Your task to perform on an android device: Find coffee shops on Maps Image 0: 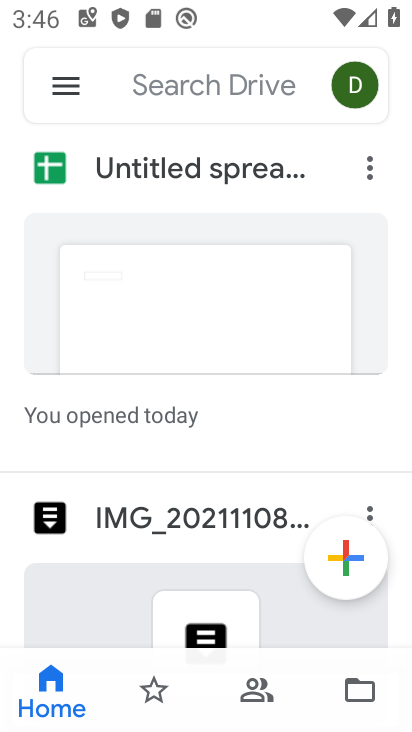
Step 0: press home button
Your task to perform on an android device: Find coffee shops on Maps Image 1: 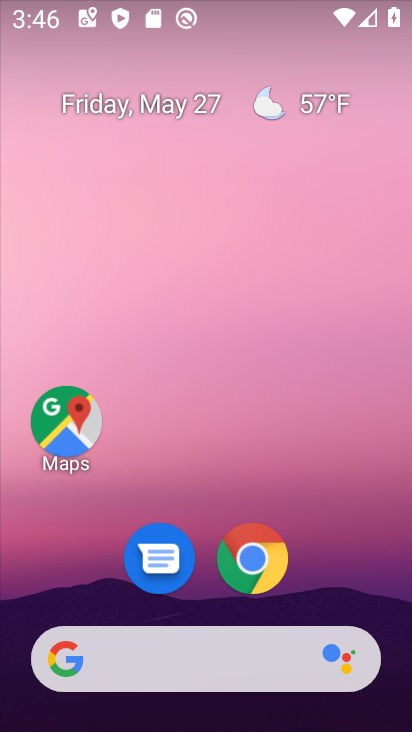
Step 1: click (90, 419)
Your task to perform on an android device: Find coffee shops on Maps Image 2: 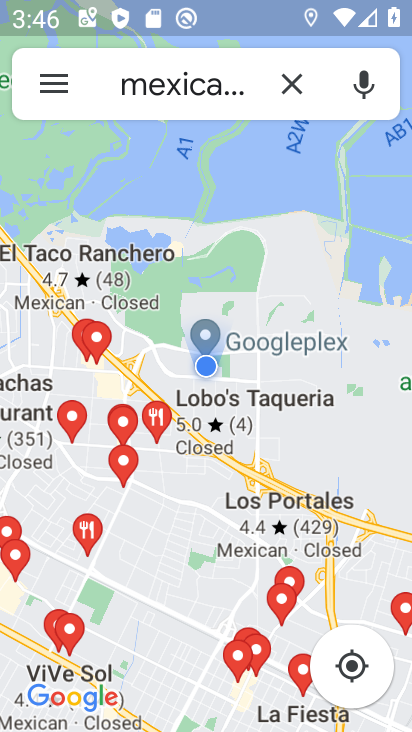
Step 2: click (276, 93)
Your task to perform on an android device: Find coffee shops on Maps Image 3: 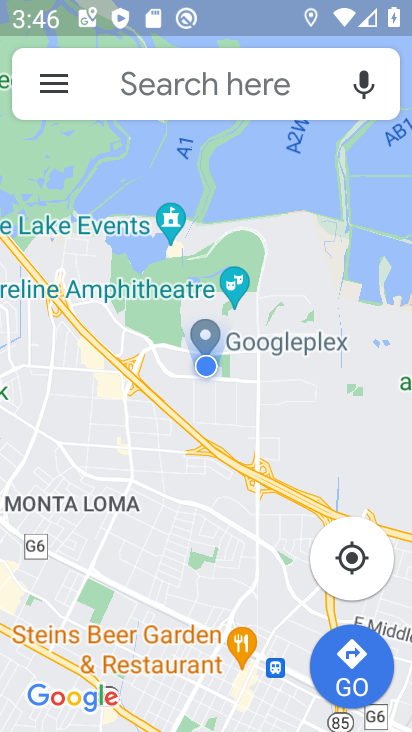
Step 3: click (276, 93)
Your task to perform on an android device: Find coffee shops on Maps Image 4: 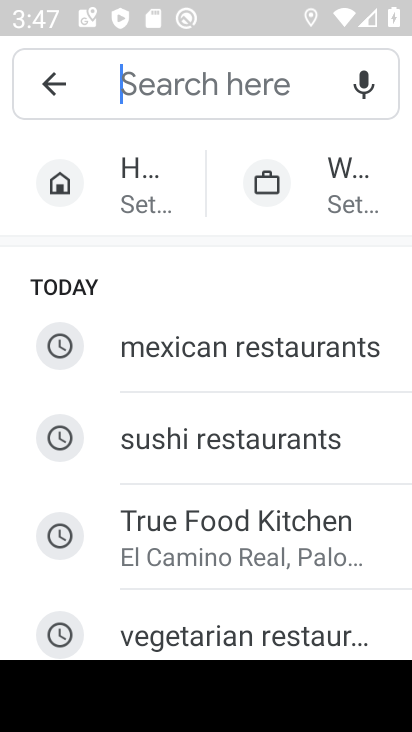
Step 4: type "coffeee"
Your task to perform on an android device: Find coffee shops on Maps Image 5: 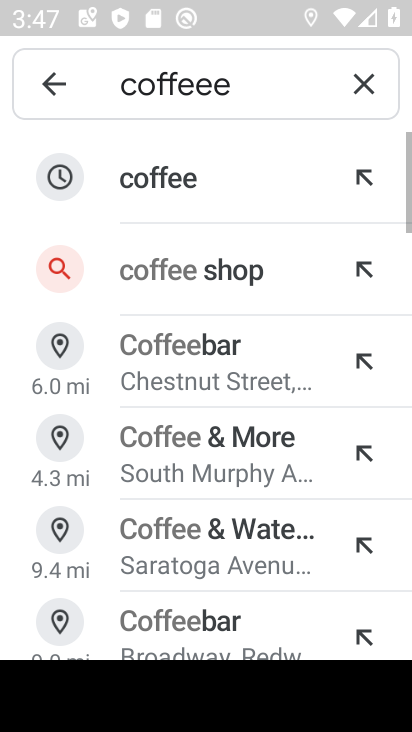
Step 5: click (234, 179)
Your task to perform on an android device: Find coffee shops on Maps Image 6: 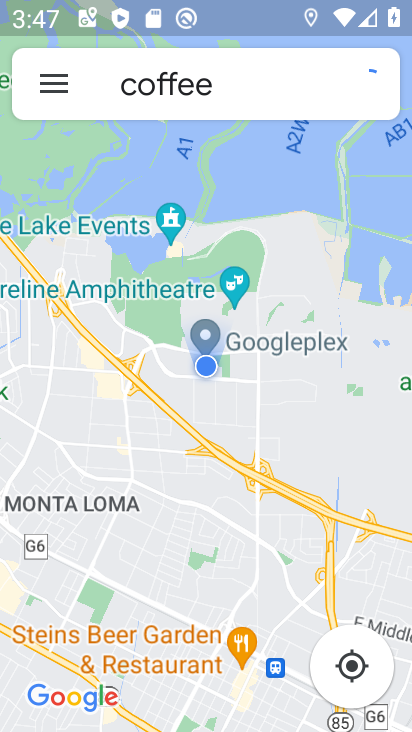
Step 6: task complete